Your task to perform on an android device: turn off wifi Image 0: 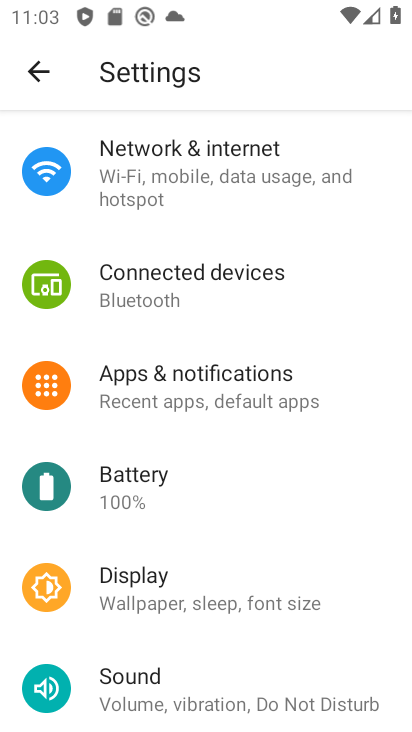
Step 0: press home button
Your task to perform on an android device: turn off wifi Image 1: 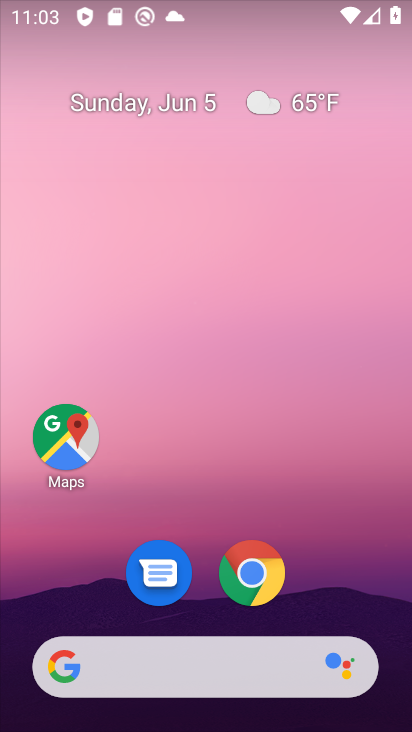
Step 1: drag from (219, 543) to (268, 159)
Your task to perform on an android device: turn off wifi Image 2: 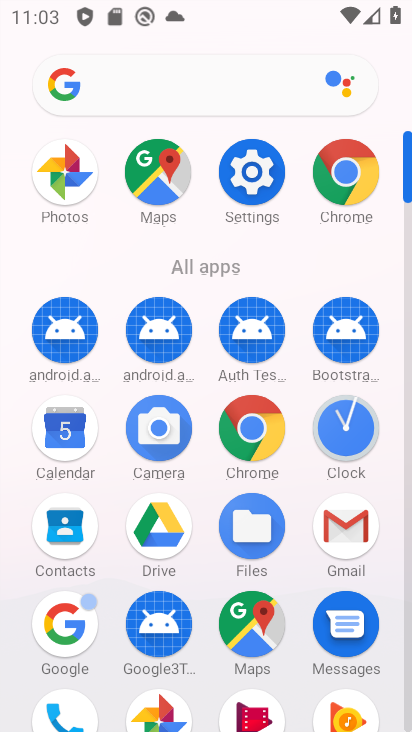
Step 2: drag from (198, 245) to (218, 7)
Your task to perform on an android device: turn off wifi Image 3: 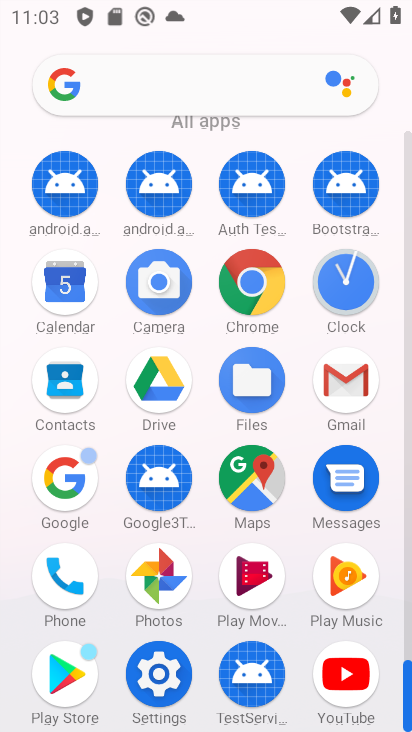
Step 3: click (153, 685)
Your task to perform on an android device: turn off wifi Image 4: 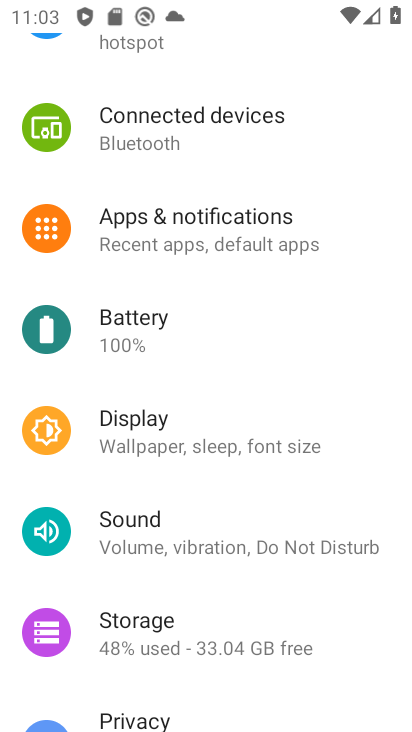
Step 4: drag from (289, 176) to (304, 620)
Your task to perform on an android device: turn off wifi Image 5: 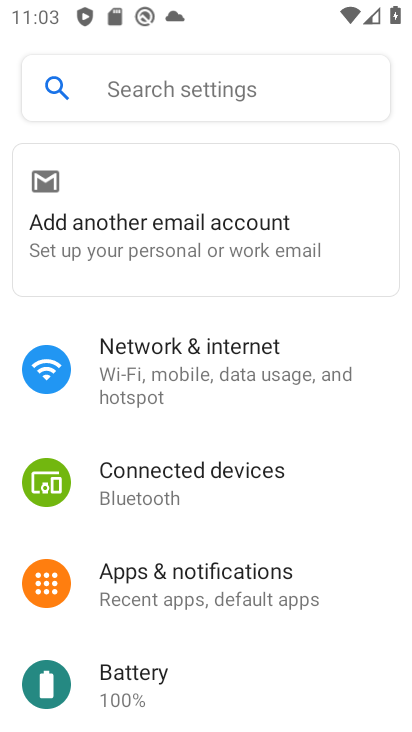
Step 5: click (265, 394)
Your task to perform on an android device: turn off wifi Image 6: 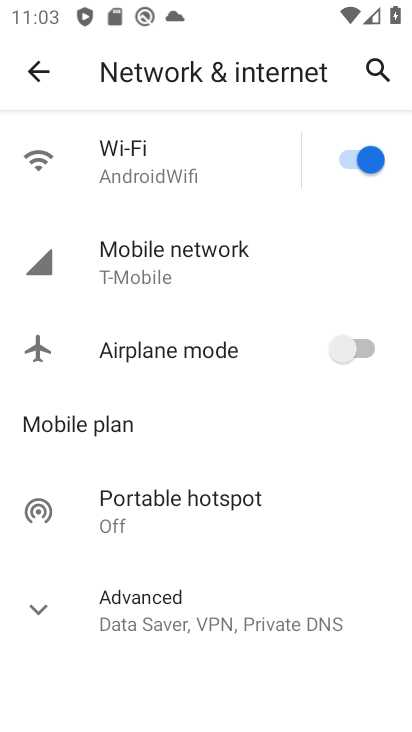
Step 6: click (358, 165)
Your task to perform on an android device: turn off wifi Image 7: 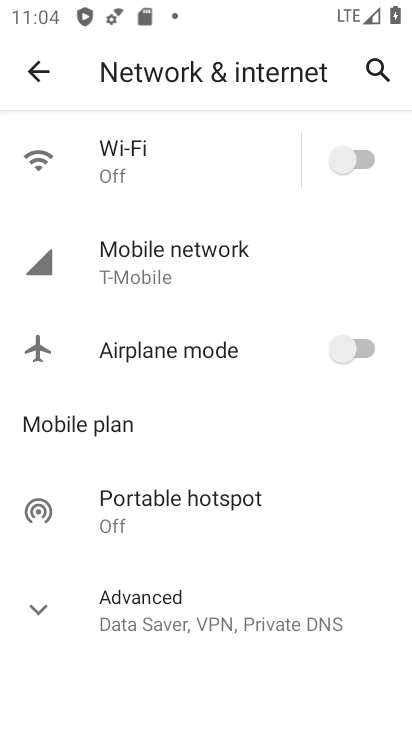
Step 7: task complete